Your task to perform on an android device: Go to Wikipedia Image 0: 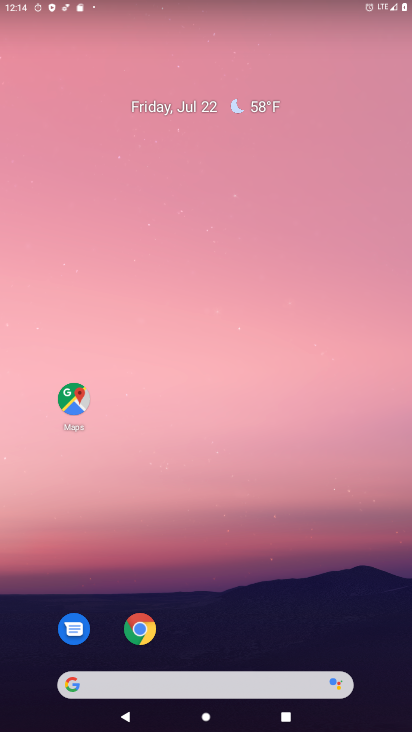
Step 0: drag from (331, 593) to (324, 107)
Your task to perform on an android device: Go to Wikipedia Image 1: 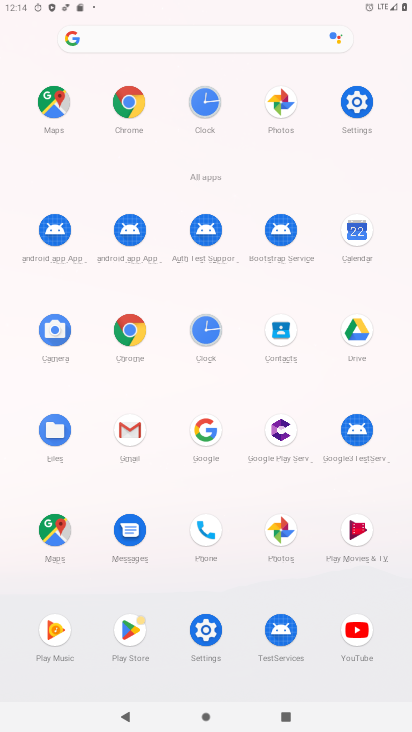
Step 1: click (136, 326)
Your task to perform on an android device: Go to Wikipedia Image 2: 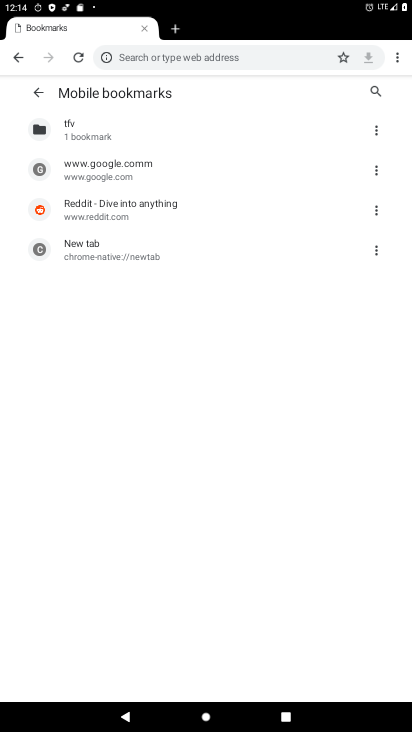
Step 2: click (197, 53)
Your task to perform on an android device: Go to Wikipedia Image 3: 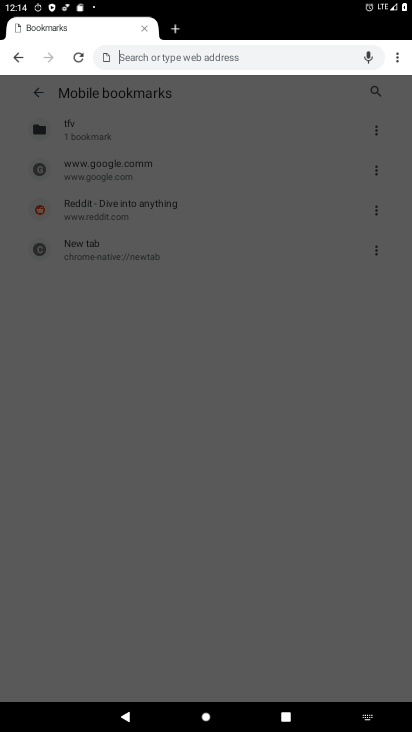
Step 3: type "wikipedia"
Your task to perform on an android device: Go to Wikipedia Image 4: 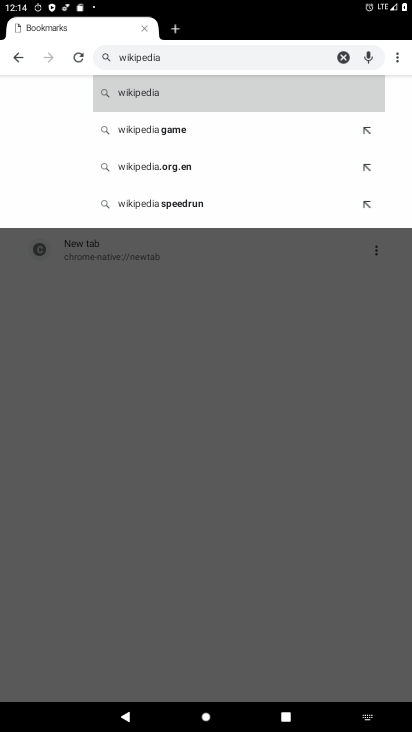
Step 4: click (175, 88)
Your task to perform on an android device: Go to Wikipedia Image 5: 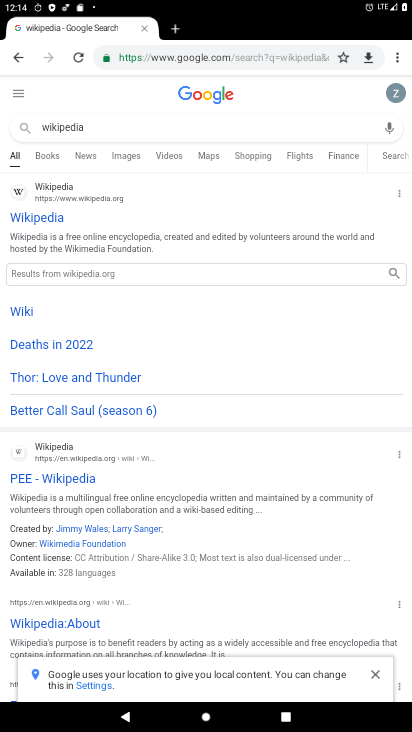
Step 5: task complete